Your task to perform on an android device: Open internet settings Image 0: 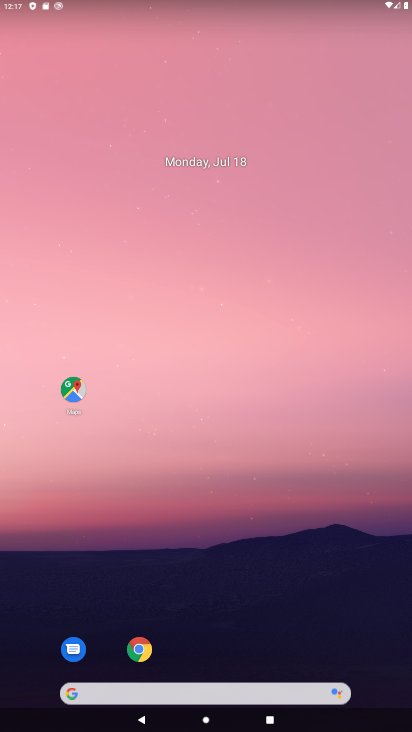
Step 0: drag from (350, 609) to (290, 100)
Your task to perform on an android device: Open internet settings Image 1: 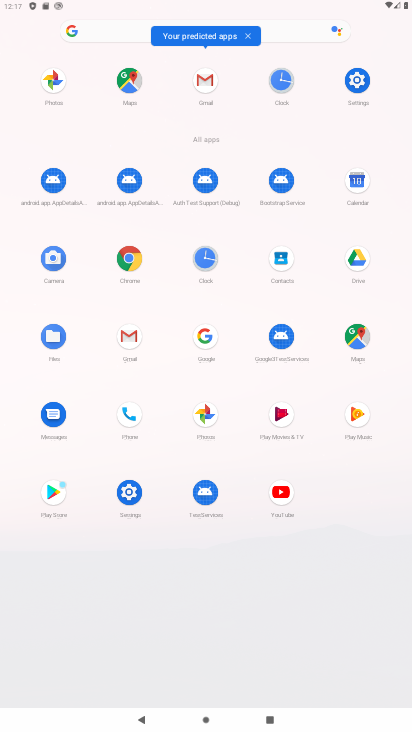
Step 1: click (363, 68)
Your task to perform on an android device: Open internet settings Image 2: 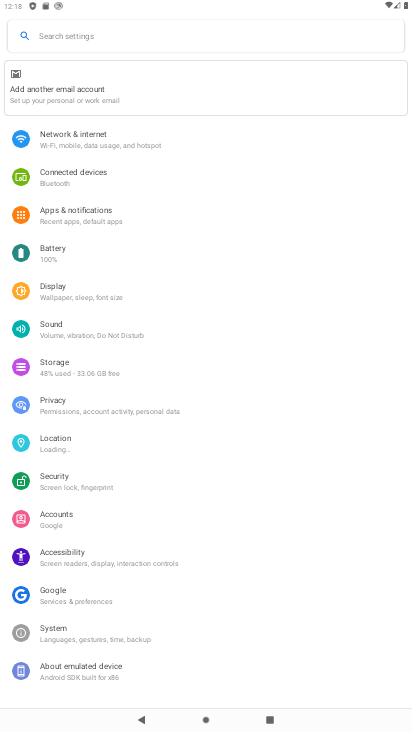
Step 2: click (260, 131)
Your task to perform on an android device: Open internet settings Image 3: 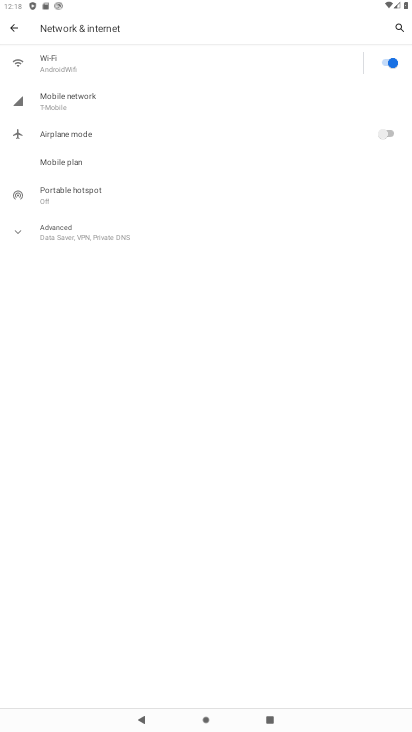
Step 3: task complete